Your task to perform on an android device: refresh tabs in the chrome app Image 0: 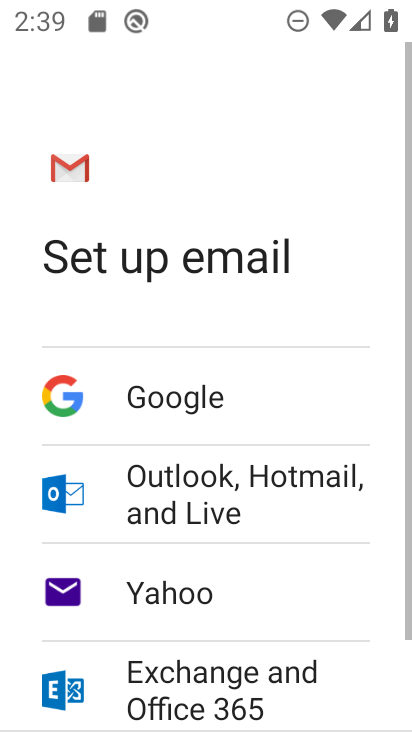
Step 0: press home button
Your task to perform on an android device: refresh tabs in the chrome app Image 1: 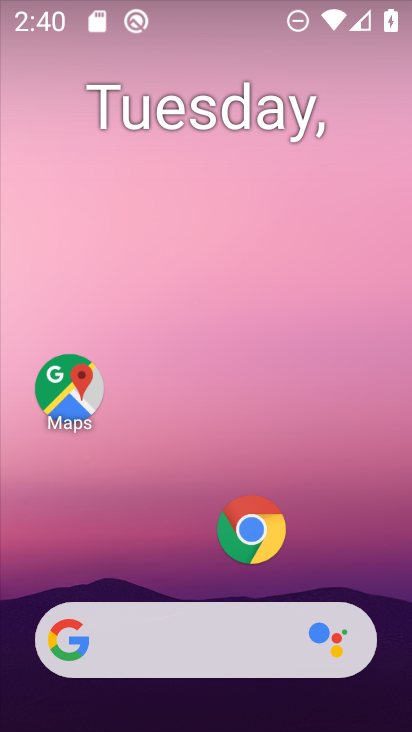
Step 1: click (262, 503)
Your task to perform on an android device: refresh tabs in the chrome app Image 2: 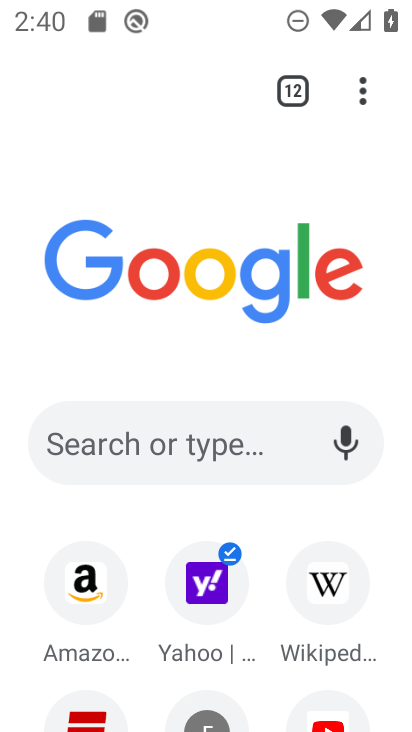
Step 2: click (373, 111)
Your task to perform on an android device: refresh tabs in the chrome app Image 3: 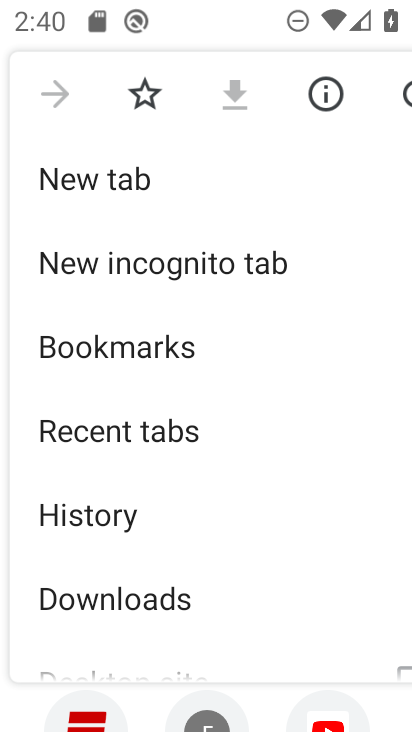
Step 3: click (406, 85)
Your task to perform on an android device: refresh tabs in the chrome app Image 4: 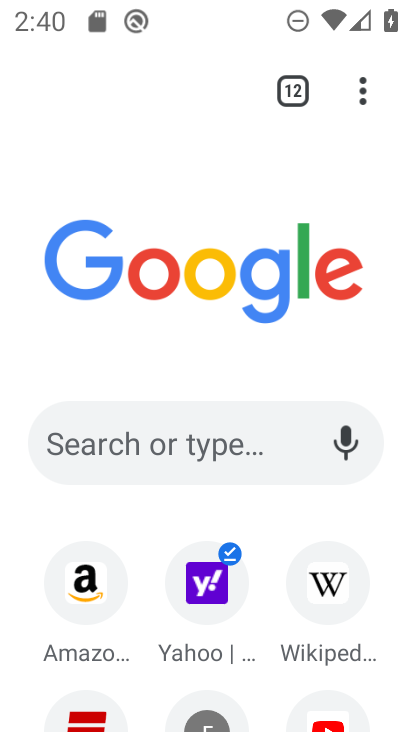
Step 4: task complete